Your task to perform on an android device: snooze an email in the gmail app Image 0: 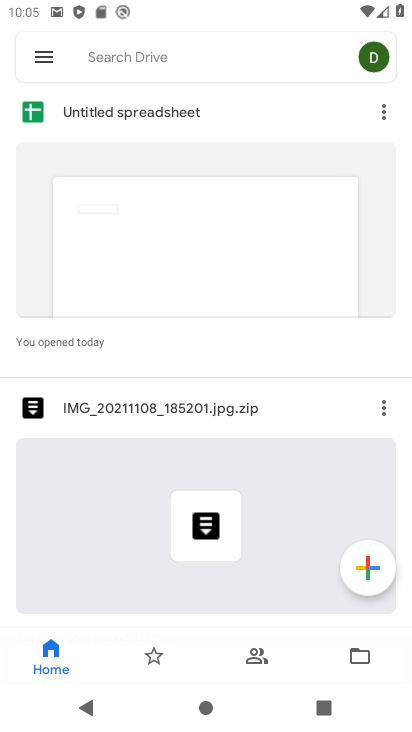
Step 0: press home button
Your task to perform on an android device: snooze an email in the gmail app Image 1: 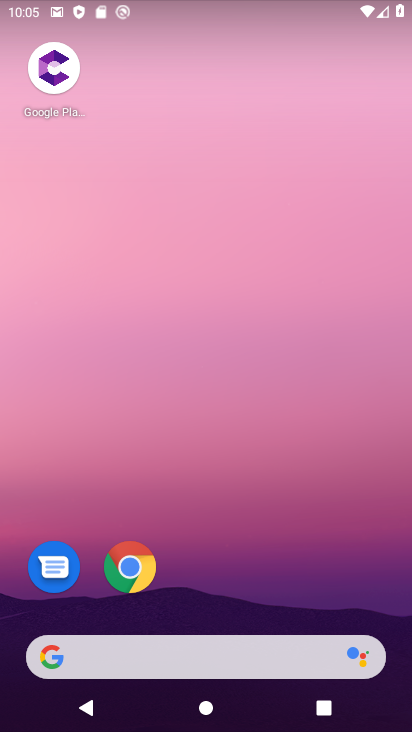
Step 1: drag from (322, 572) to (171, 201)
Your task to perform on an android device: snooze an email in the gmail app Image 2: 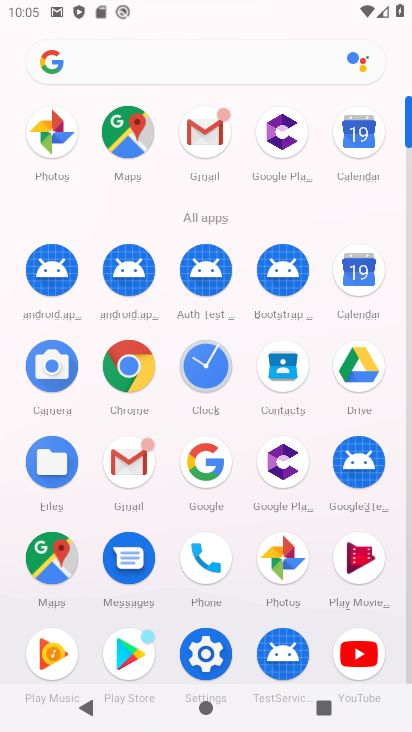
Step 2: click (199, 132)
Your task to perform on an android device: snooze an email in the gmail app Image 3: 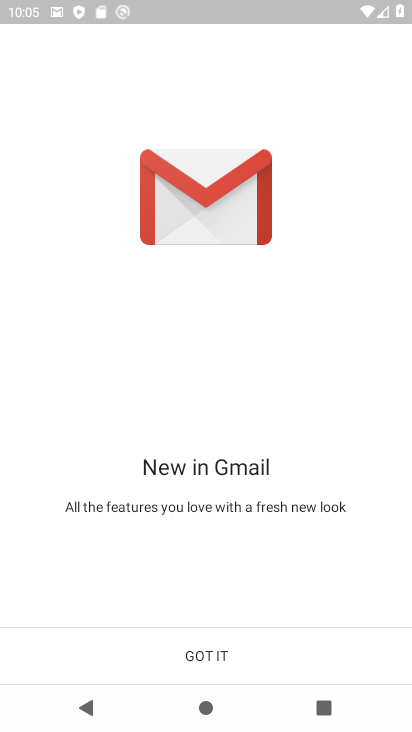
Step 3: click (213, 631)
Your task to perform on an android device: snooze an email in the gmail app Image 4: 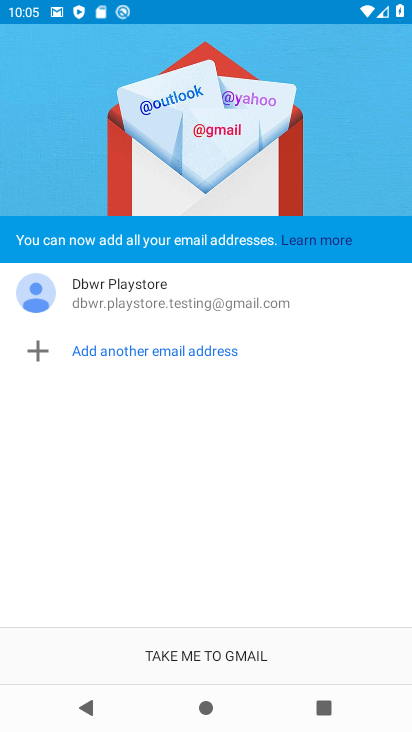
Step 4: click (188, 660)
Your task to perform on an android device: snooze an email in the gmail app Image 5: 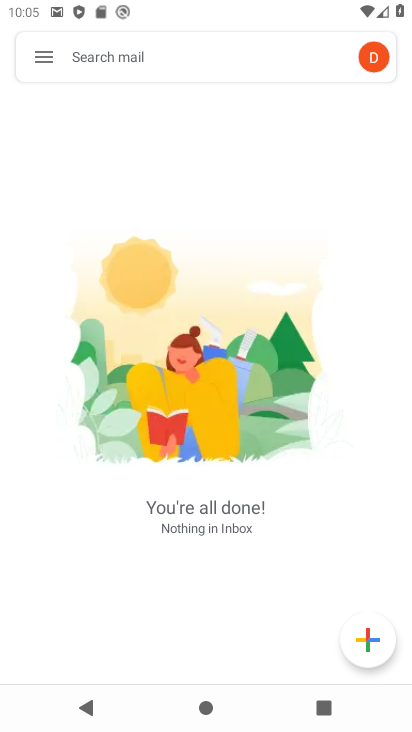
Step 5: click (43, 67)
Your task to perform on an android device: snooze an email in the gmail app Image 6: 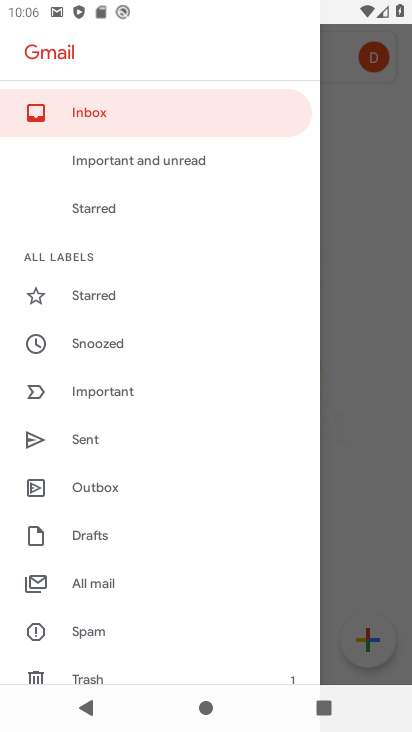
Step 6: click (109, 572)
Your task to perform on an android device: snooze an email in the gmail app Image 7: 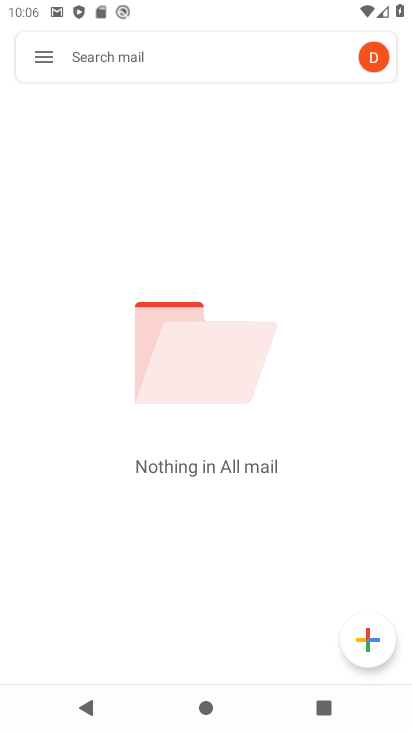
Step 7: task complete